Your task to perform on an android device: turn on wifi Image 0: 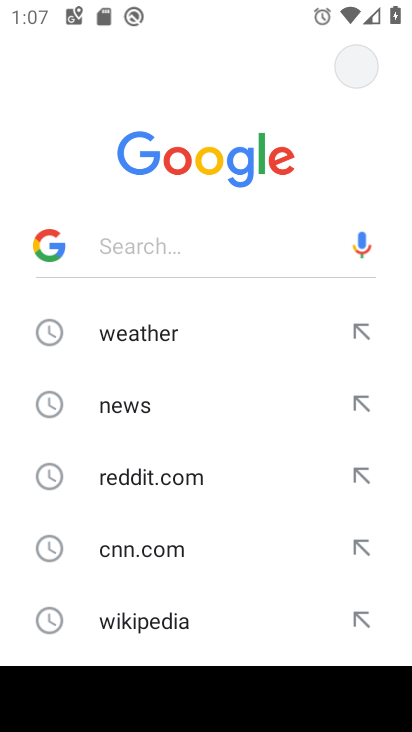
Step 0: press back button
Your task to perform on an android device: turn on wifi Image 1: 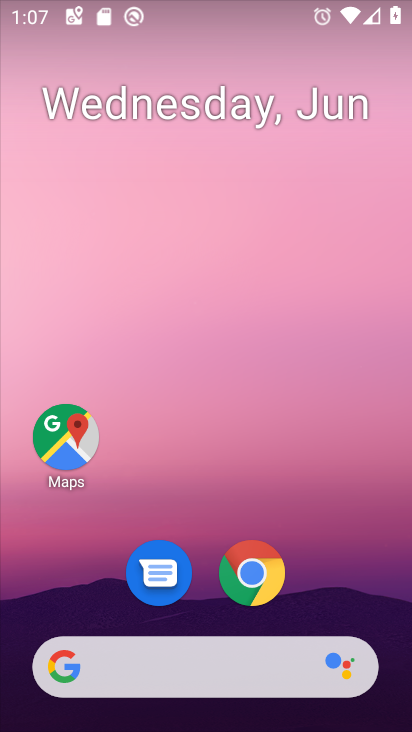
Step 1: task complete